Your task to perform on an android device: install app "Gboard" Image 0: 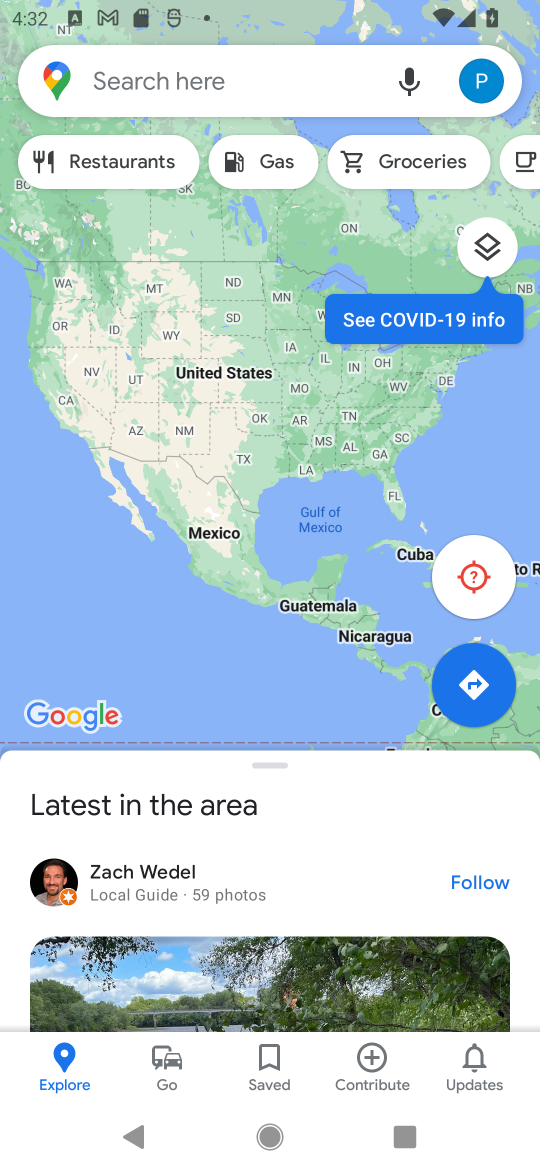
Step 0: press home button
Your task to perform on an android device: install app "Gboard" Image 1: 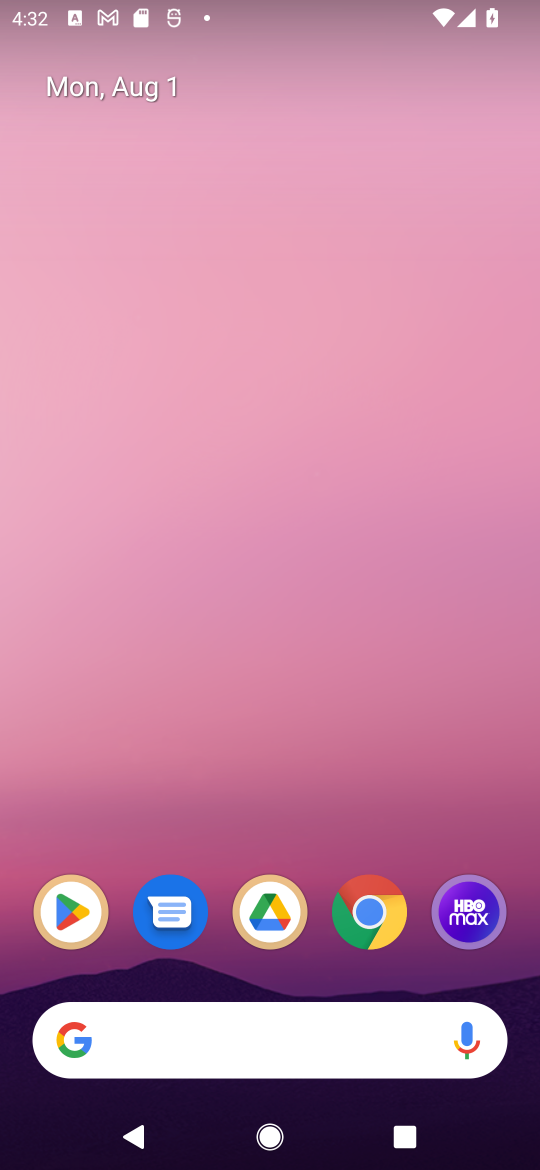
Step 1: click (68, 912)
Your task to perform on an android device: install app "Gboard" Image 2: 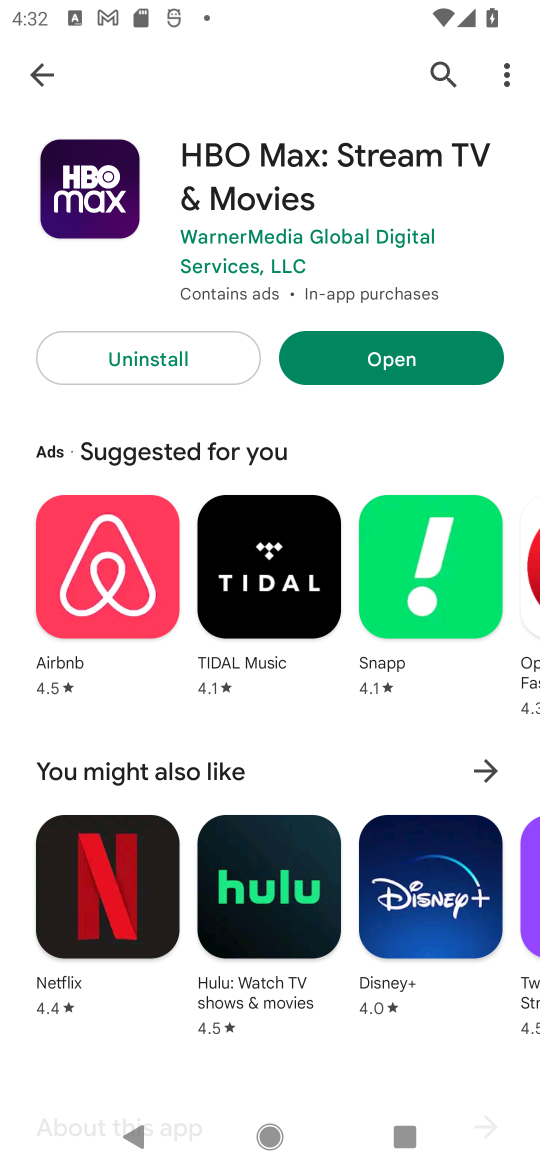
Step 2: click (436, 69)
Your task to perform on an android device: install app "Gboard" Image 3: 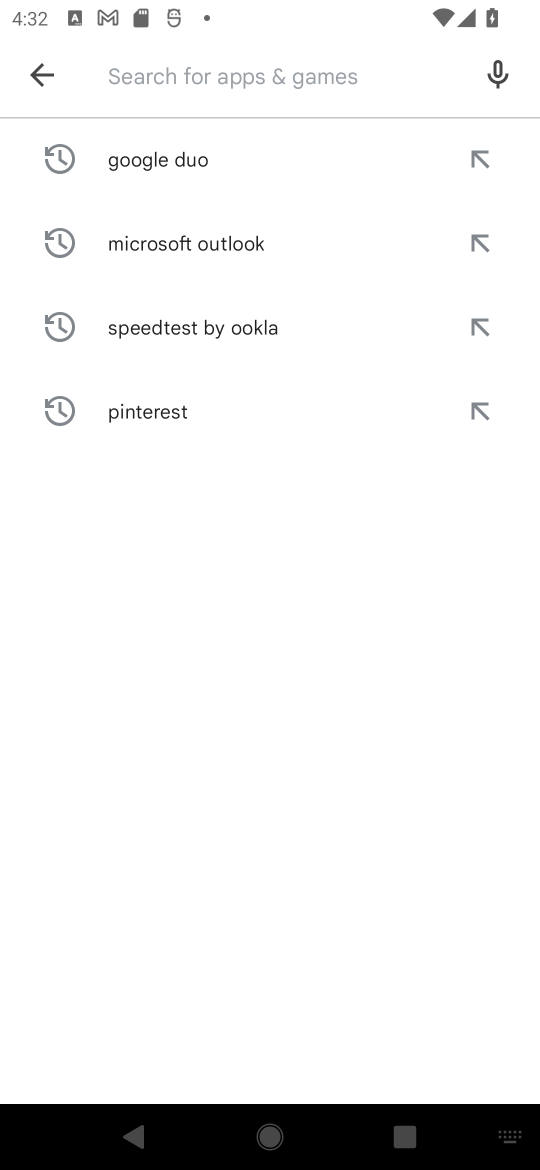
Step 3: type "Gboard"
Your task to perform on an android device: install app "Gboard" Image 4: 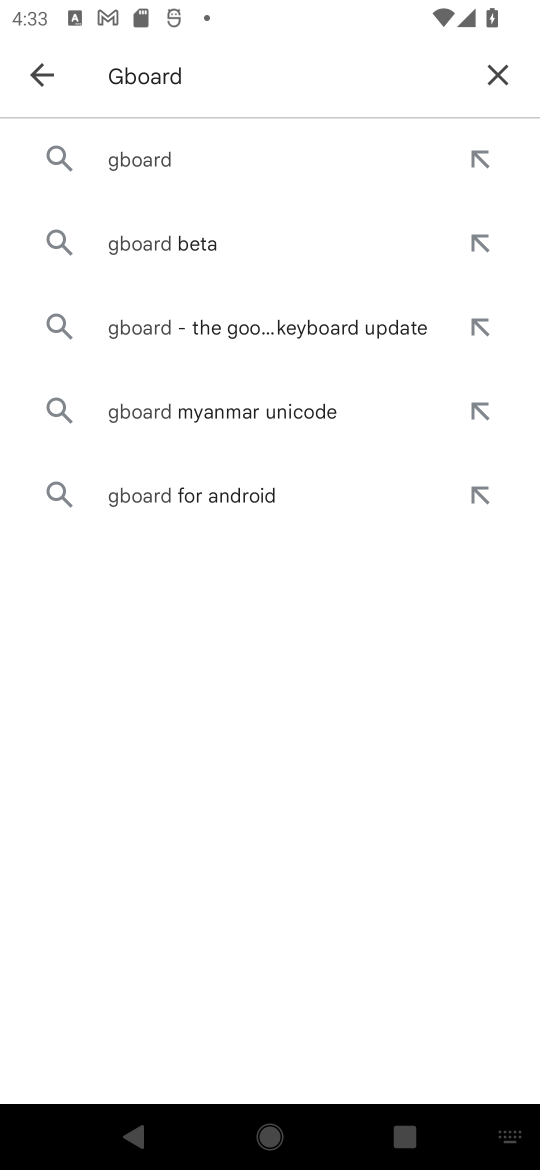
Step 4: click (97, 173)
Your task to perform on an android device: install app "Gboard" Image 5: 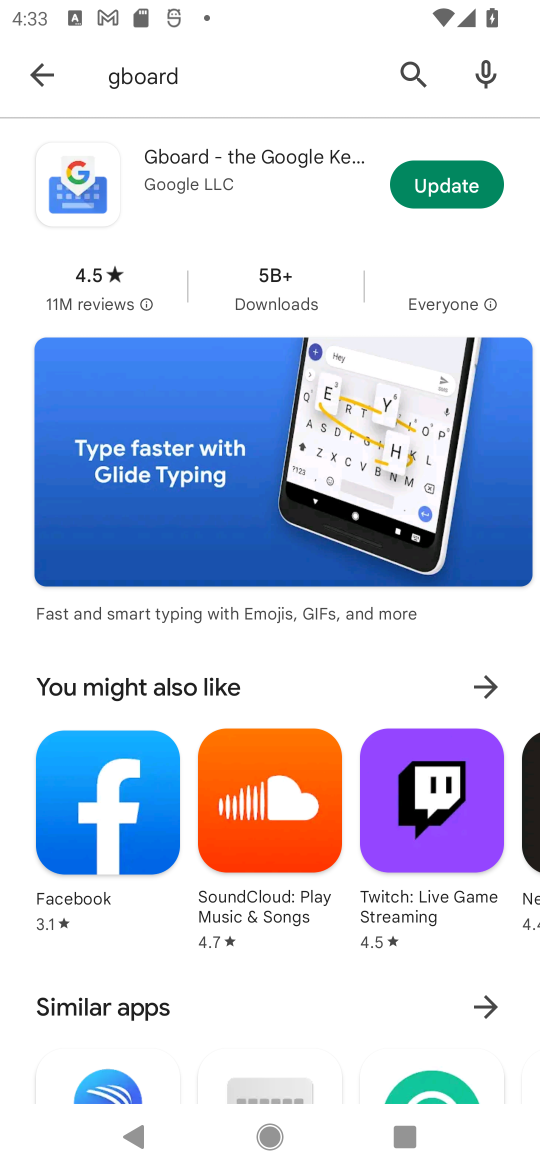
Step 5: task complete